Your task to perform on an android device: Open Android settings Image 0: 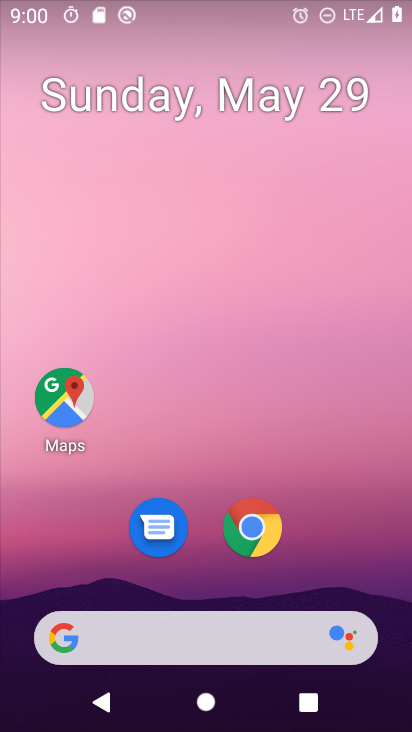
Step 0: drag from (385, 623) to (266, 84)
Your task to perform on an android device: Open Android settings Image 1: 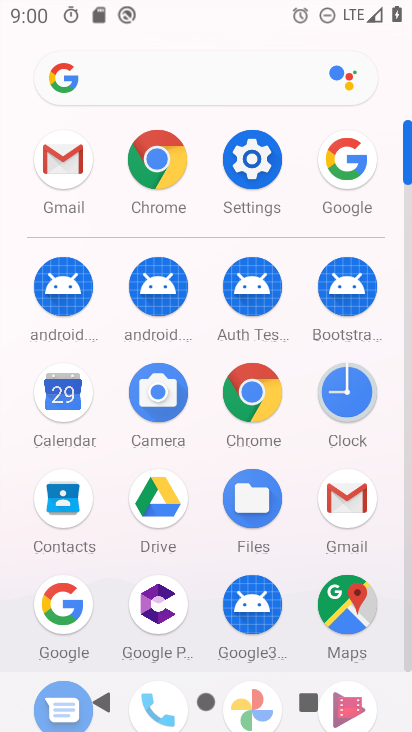
Step 1: click (253, 172)
Your task to perform on an android device: Open Android settings Image 2: 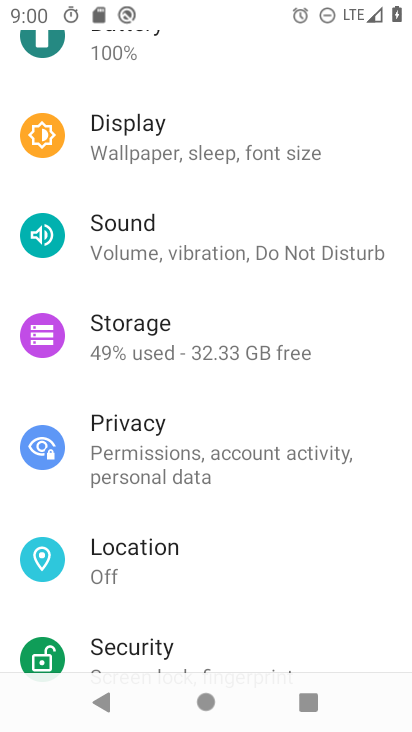
Step 2: drag from (142, 576) to (171, 0)
Your task to perform on an android device: Open Android settings Image 3: 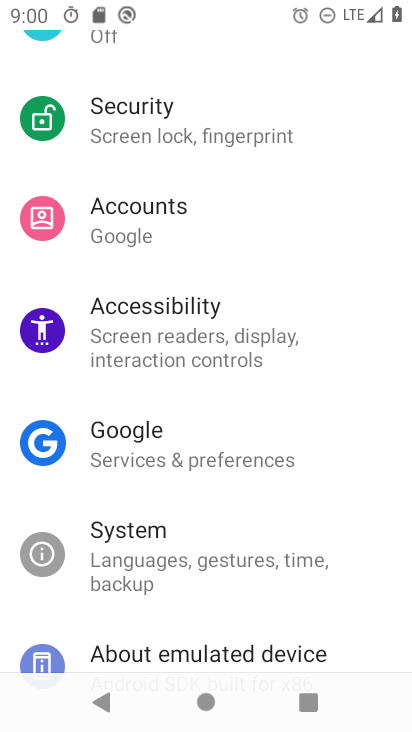
Step 3: drag from (225, 579) to (215, 95)
Your task to perform on an android device: Open Android settings Image 4: 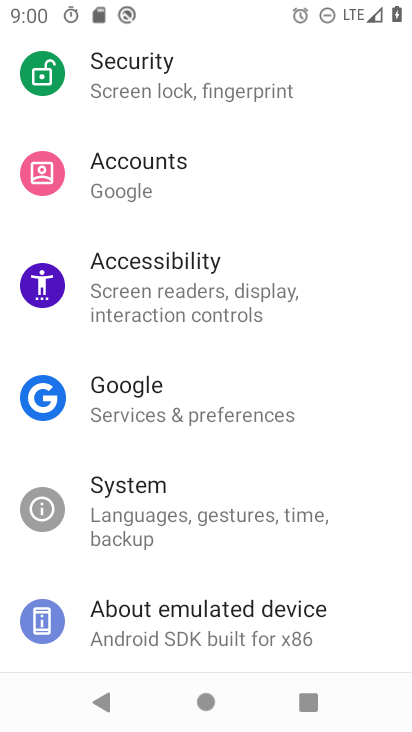
Step 4: click (191, 630)
Your task to perform on an android device: Open Android settings Image 5: 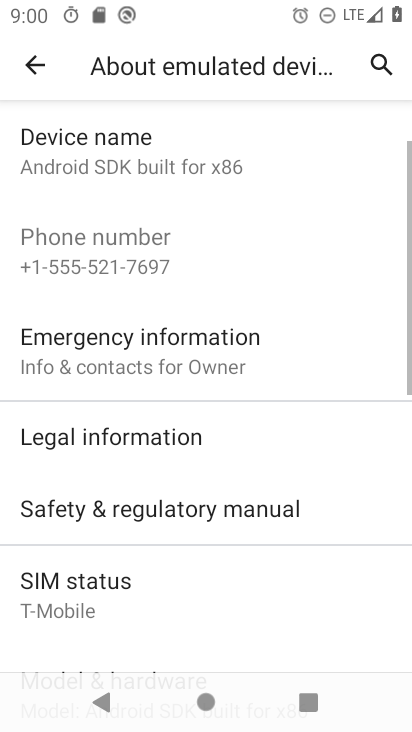
Step 5: drag from (202, 592) to (153, 32)
Your task to perform on an android device: Open Android settings Image 6: 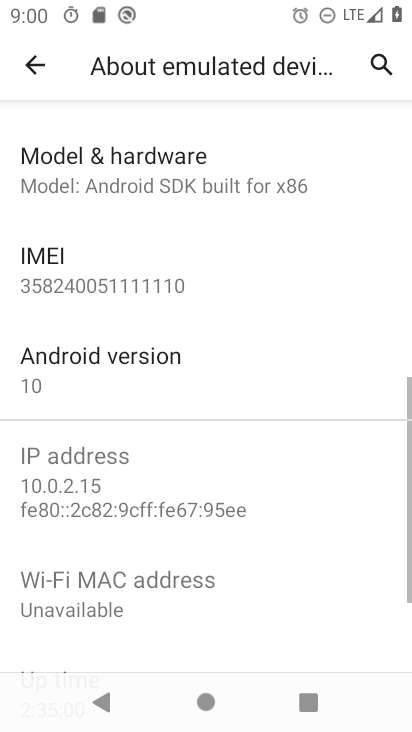
Step 6: click (180, 354)
Your task to perform on an android device: Open Android settings Image 7: 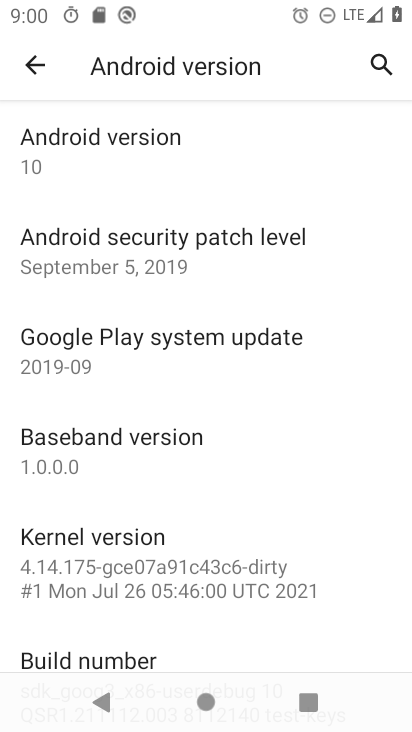
Step 7: task complete